Your task to perform on an android device: How do I get to the nearest AT&T Store? Image 0: 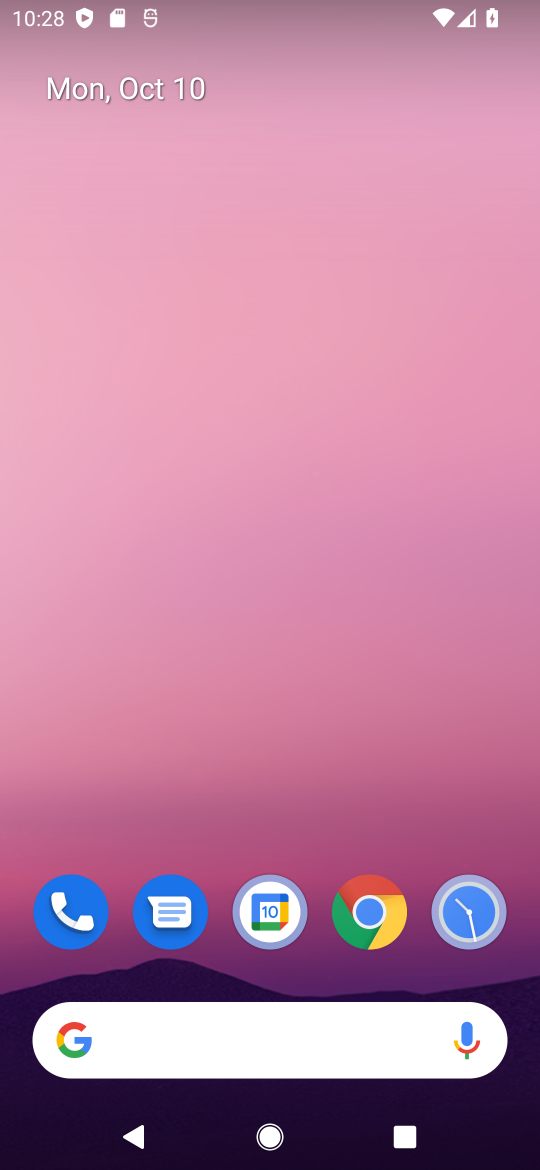
Step 0: click (84, 1042)
Your task to perform on an android device: How do I get to the nearest AT&T Store? Image 1: 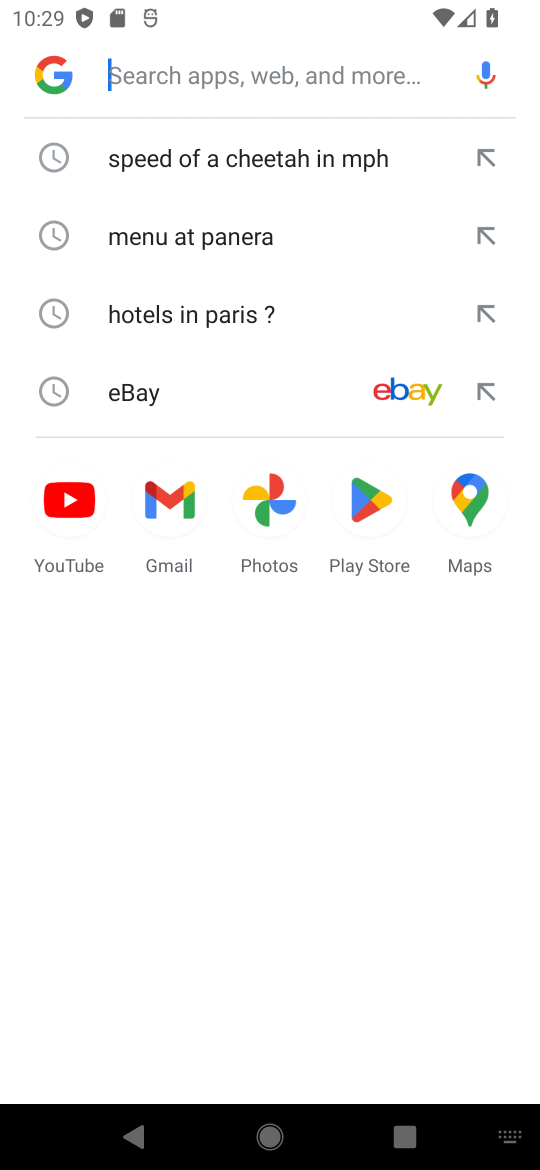
Step 1: type "how do i get to the nearest at&t store ?"
Your task to perform on an android device: How do I get to the nearest AT&T Store? Image 2: 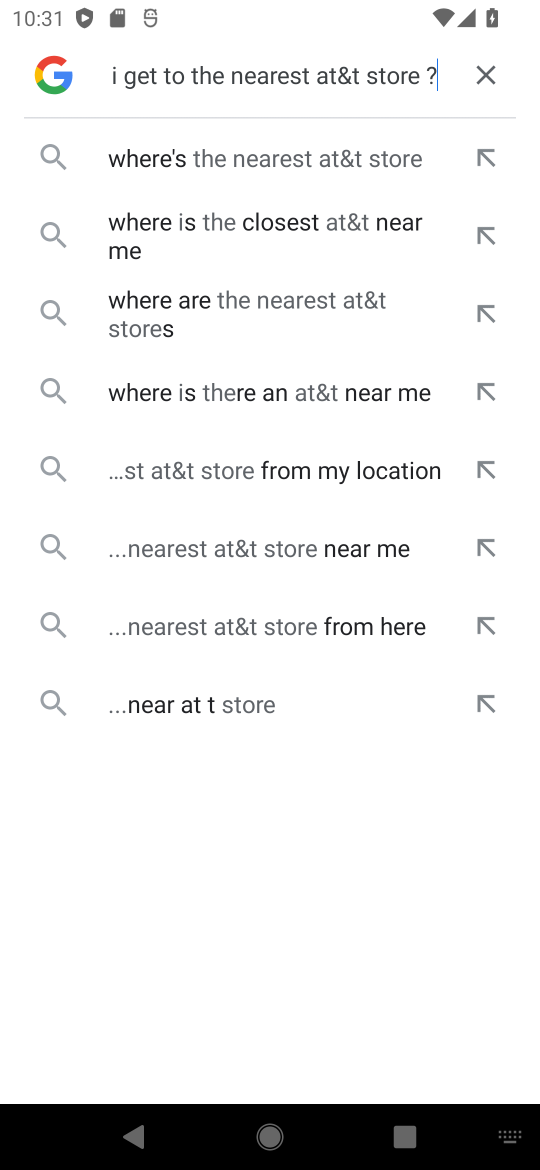
Step 2: click (384, 148)
Your task to perform on an android device: How do I get to the nearest AT&T Store? Image 3: 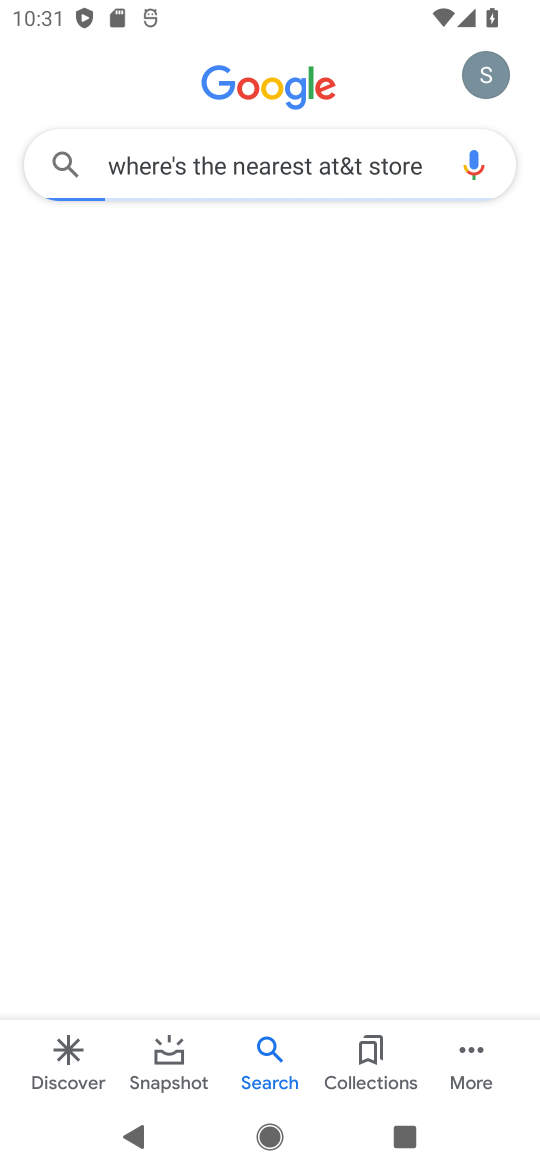
Step 3: task complete